Your task to perform on an android device: Install the Twitter app Image 0: 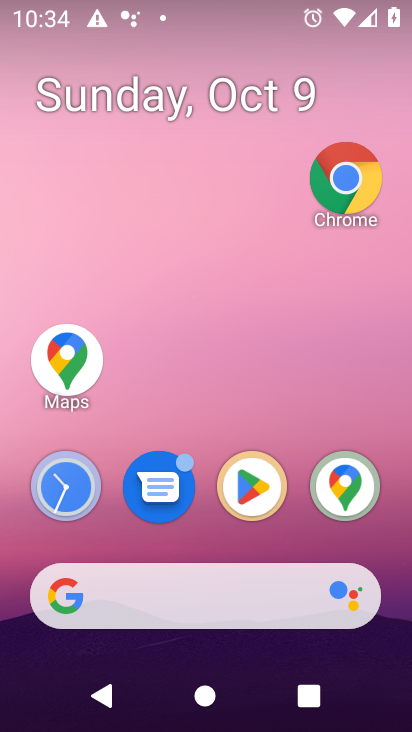
Step 0: click (264, 502)
Your task to perform on an android device: Install the Twitter app Image 1: 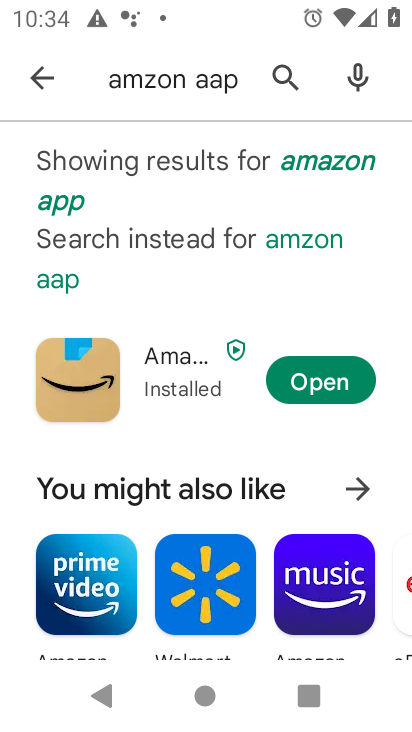
Step 1: click (50, 79)
Your task to perform on an android device: Install the Twitter app Image 2: 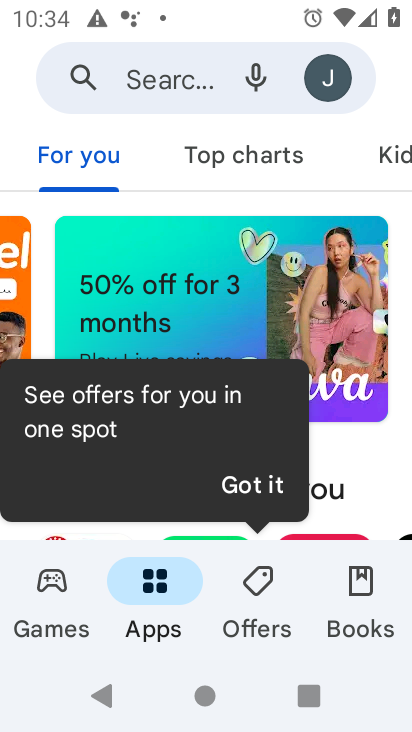
Step 2: click (163, 70)
Your task to perform on an android device: Install the Twitter app Image 3: 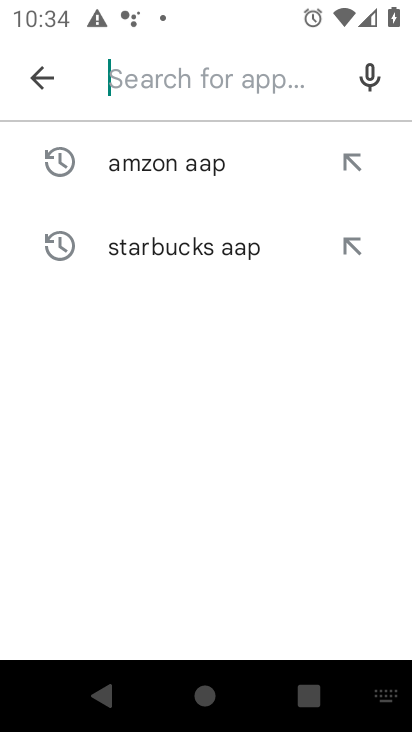
Step 3: type "Twitter app"
Your task to perform on an android device: Install the Twitter app Image 4: 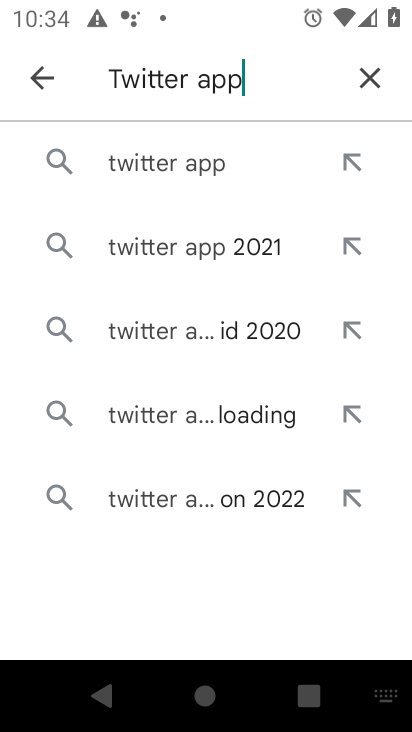
Step 4: click (257, 166)
Your task to perform on an android device: Install the Twitter app Image 5: 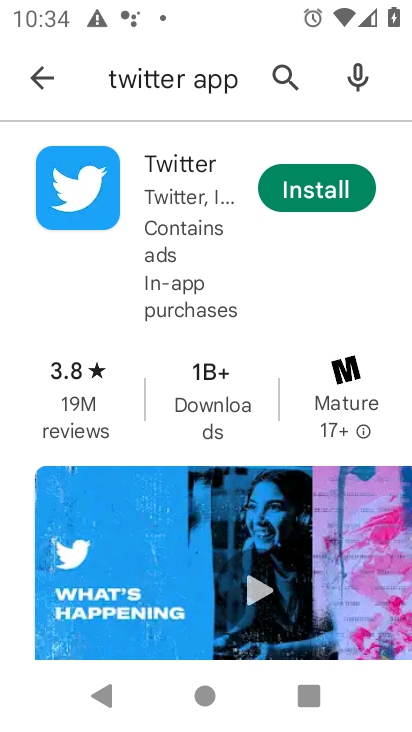
Step 5: click (302, 195)
Your task to perform on an android device: Install the Twitter app Image 6: 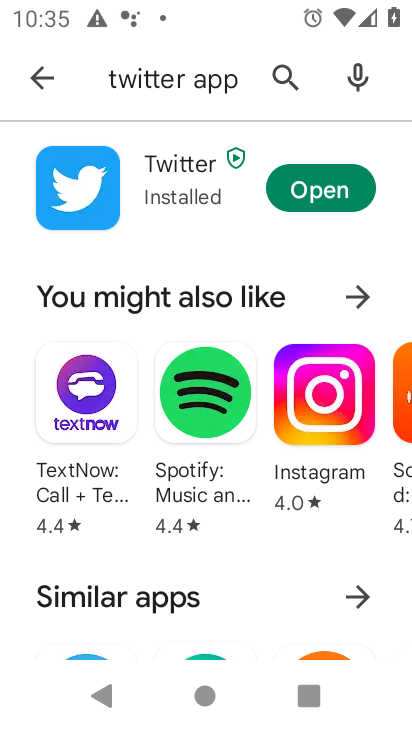
Step 6: task complete